Your task to perform on an android device: Go to CNN.com Image 0: 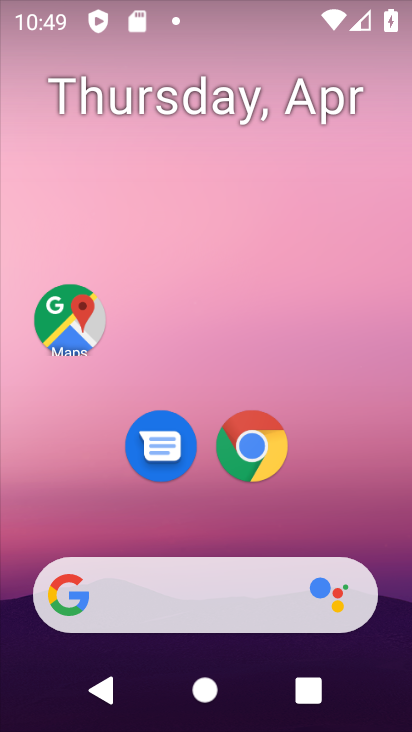
Step 0: drag from (216, 491) to (219, 164)
Your task to perform on an android device: Go to CNN.com Image 1: 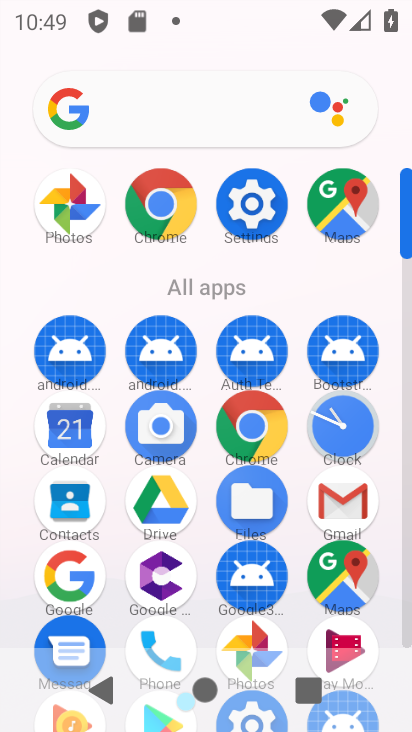
Step 1: click (245, 431)
Your task to perform on an android device: Go to CNN.com Image 2: 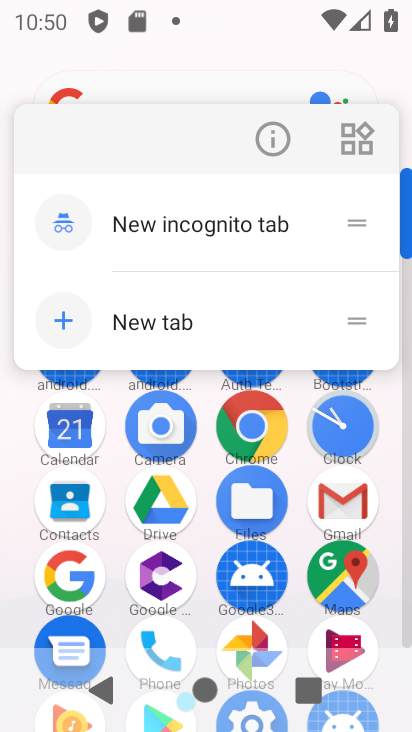
Step 2: click (275, 140)
Your task to perform on an android device: Go to CNN.com Image 3: 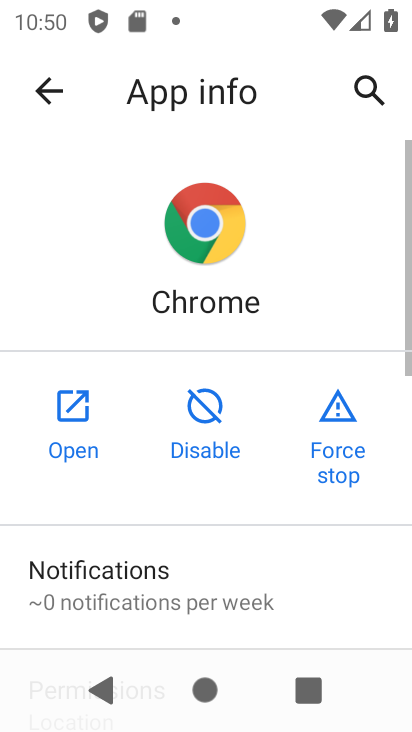
Step 3: click (57, 419)
Your task to perform on an android device: Go to CNN.com Image 4: 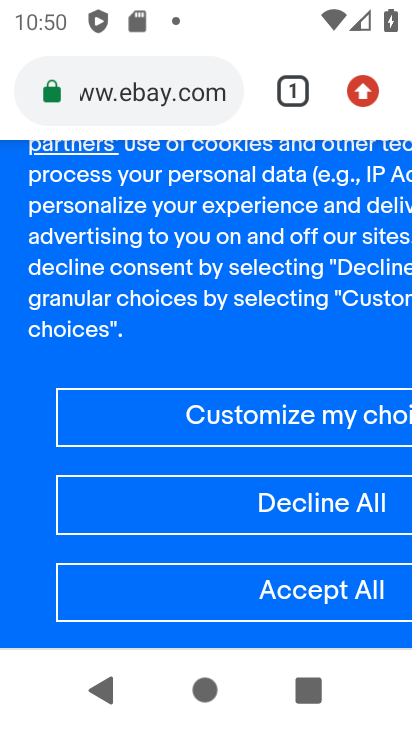
Step 4: click (153, 92)
Your task to perform on an android device: Go to CNN.com Image 5: 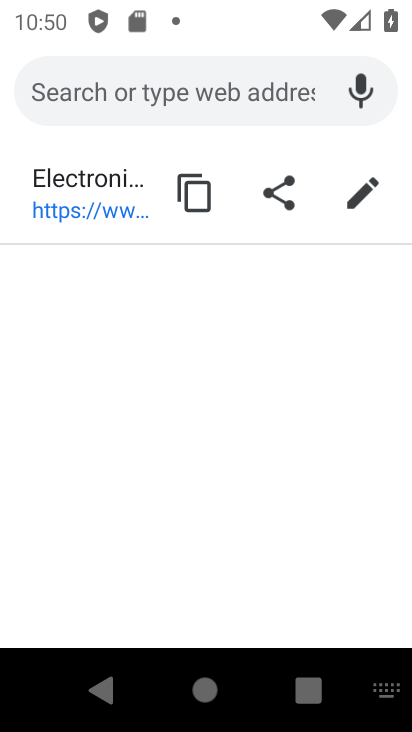
Step 5: type "cnn"
Your task to perform on an android device: Go to CNN.com Image 6: 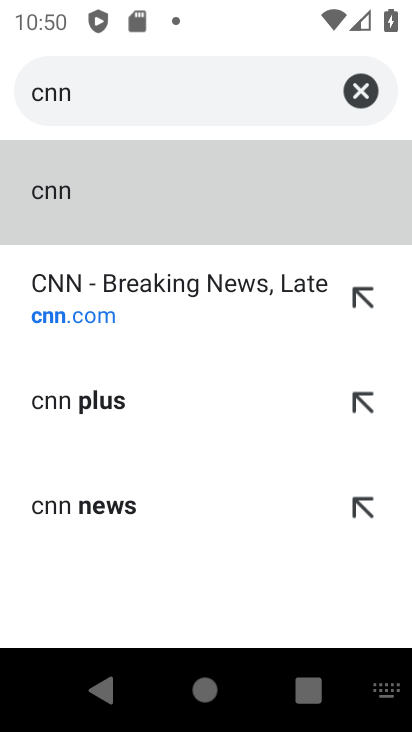
Step 6: click (93, 284)
Your task to perform on an android device: Go to CNN.com Image 7: 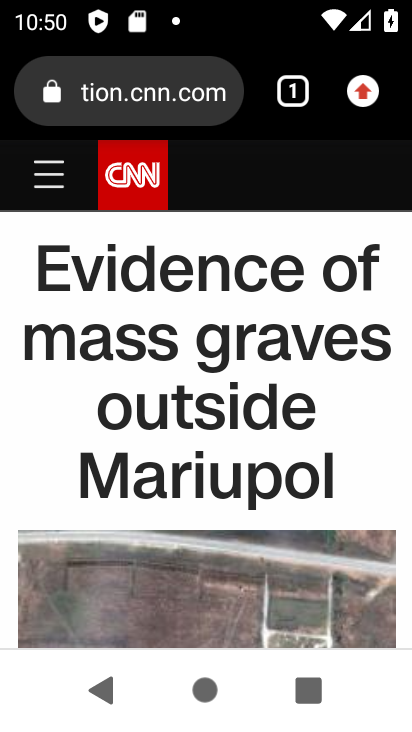
Step 7: task complete